Your task to perform on an android device: Turn off the flashlight Image 0: 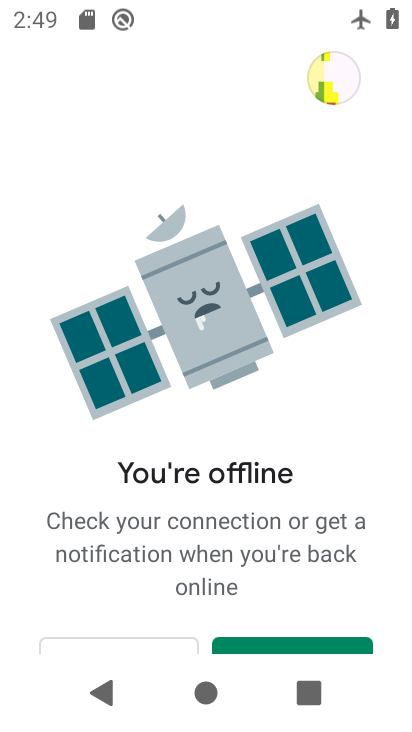
Step 0: press home button
Your task to perform on an android device: Turn off the flashlight Image 1: 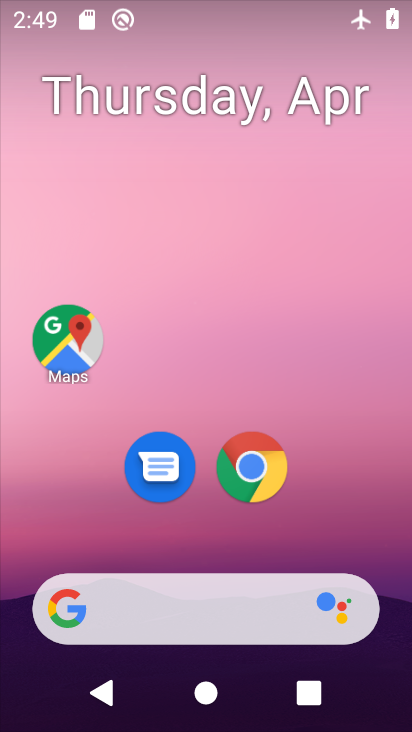
Step 1: drag from (309, 513) to (298, 118)
Your task to perform on an android device: Turn off the flashlight Image 2: 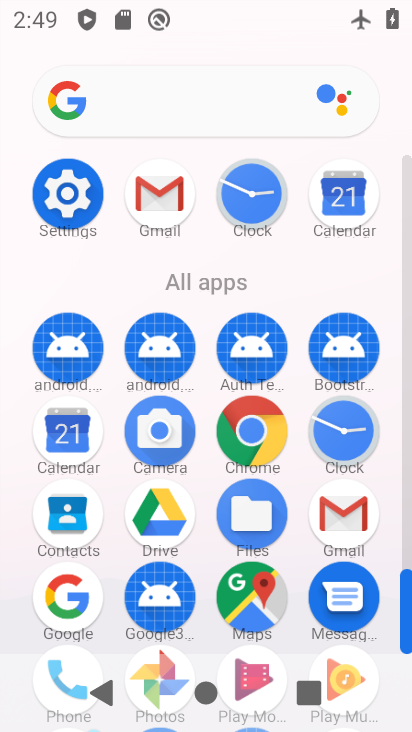
Step 2: click (90, 188)
Your task to perform on an android device: Turn off the flashlight Image 3: 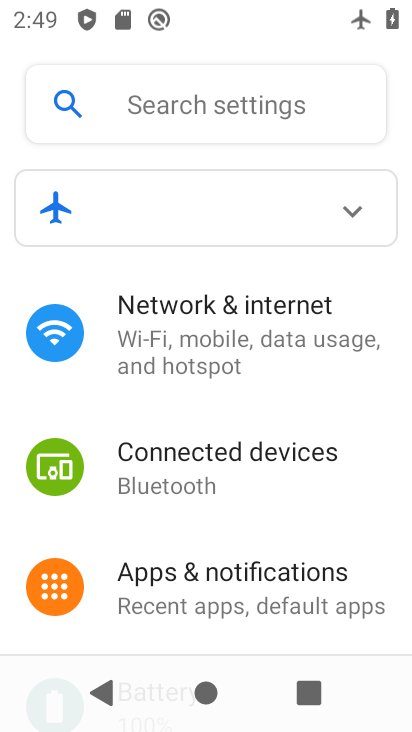
Step 3: click (203, 107)
Your task to perform on an android device: Turn off the flashlight Image 4: 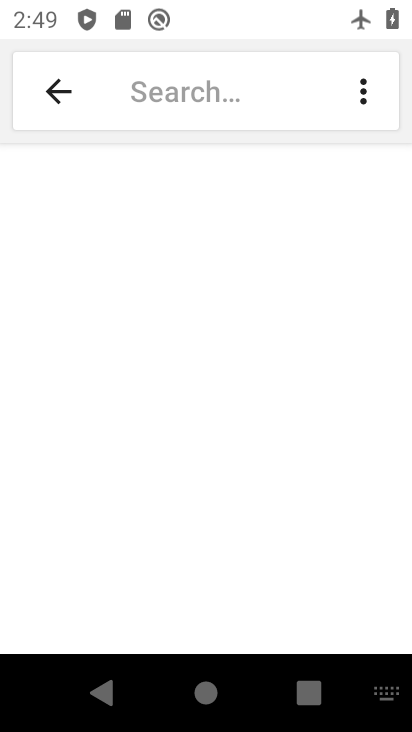
Step 4: type "flashlight"
Your task to perform on an android device: Turn off the flashlight Image 5: 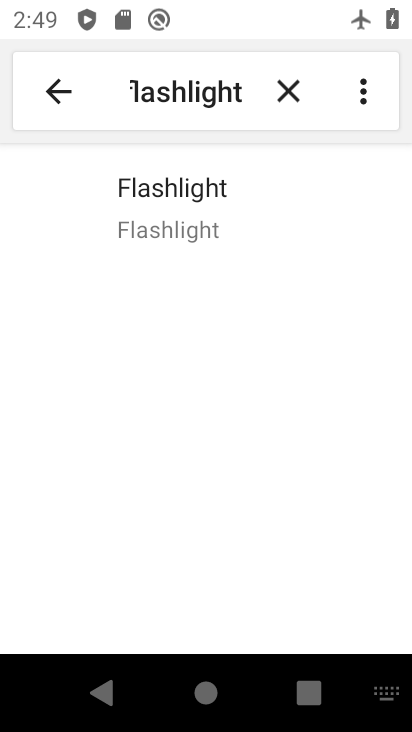
Step 5: click (202, 201)
Your task to perform on an android device: Turn off the flashlight Image 6: 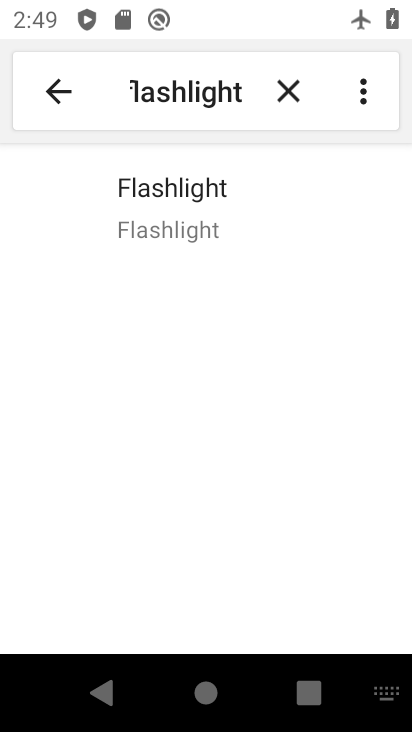
Step 6: task complete